Your task to perform on an android device: open chrome privacy settings Image 0: 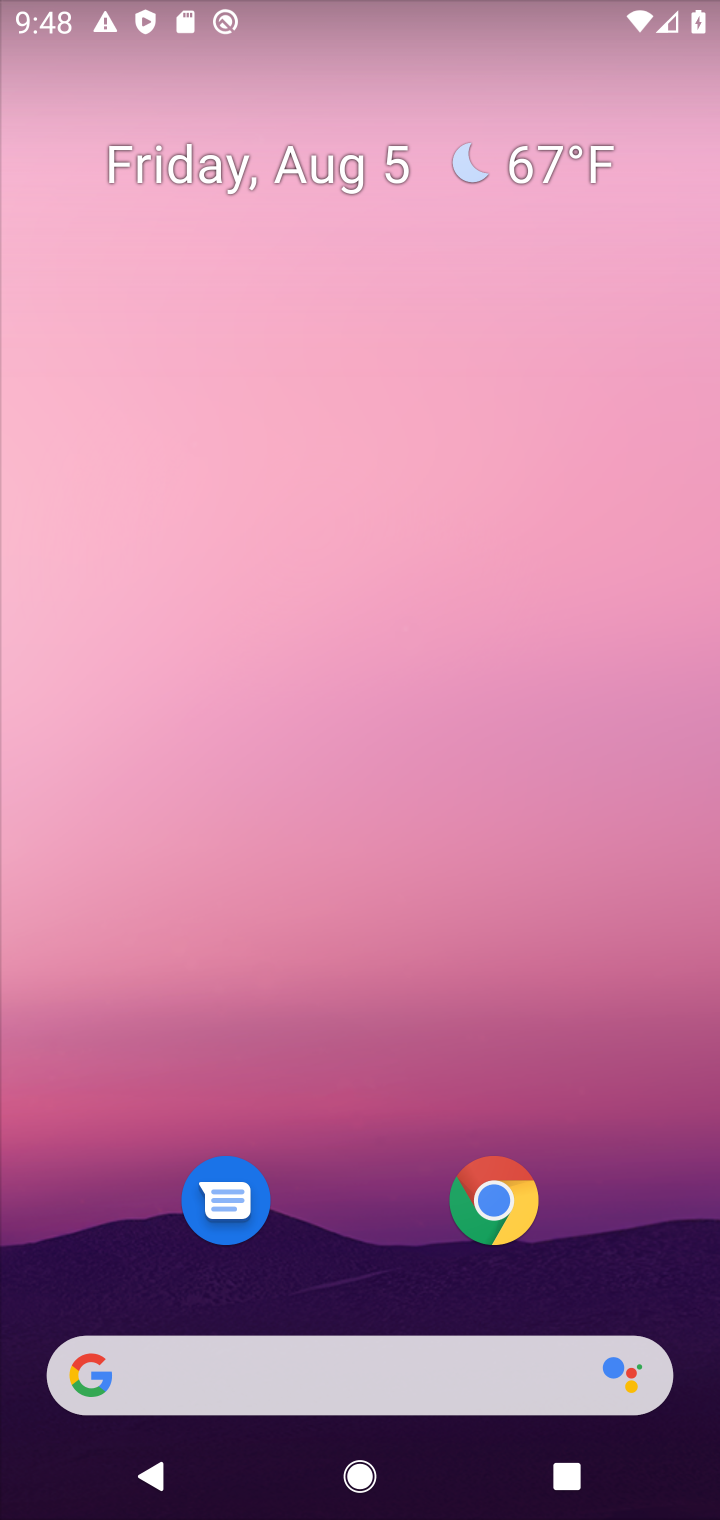
Step 0: click (520, 1198)
Your task to perform on an android device: open chrome privacy settings Image 1: 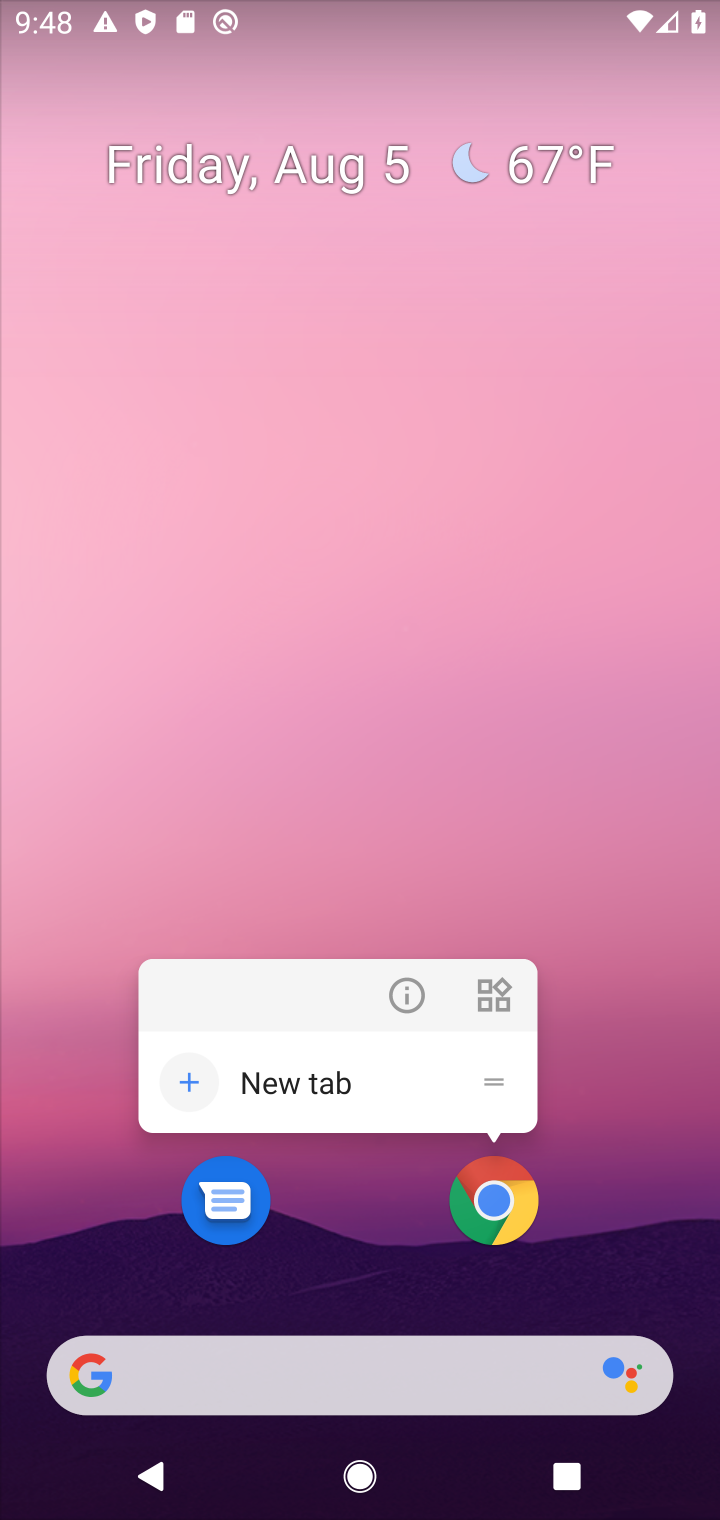
Step 1: click (483, 1202)
Your task to perform on an android device: open chrome privacy settings Image 2: 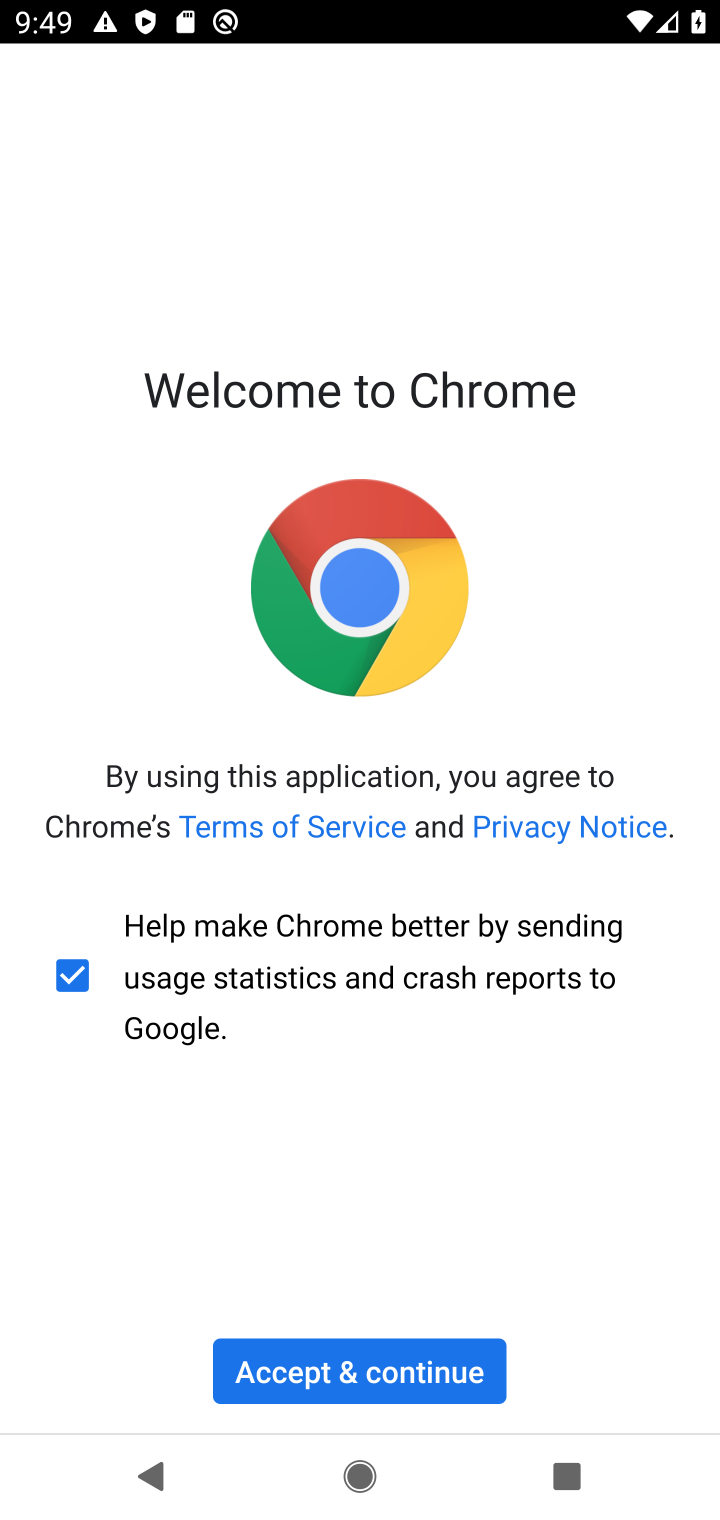
Step 2: click (312, 1381)
Your task to perform on an android device: open chrome privacy settings Image 3: 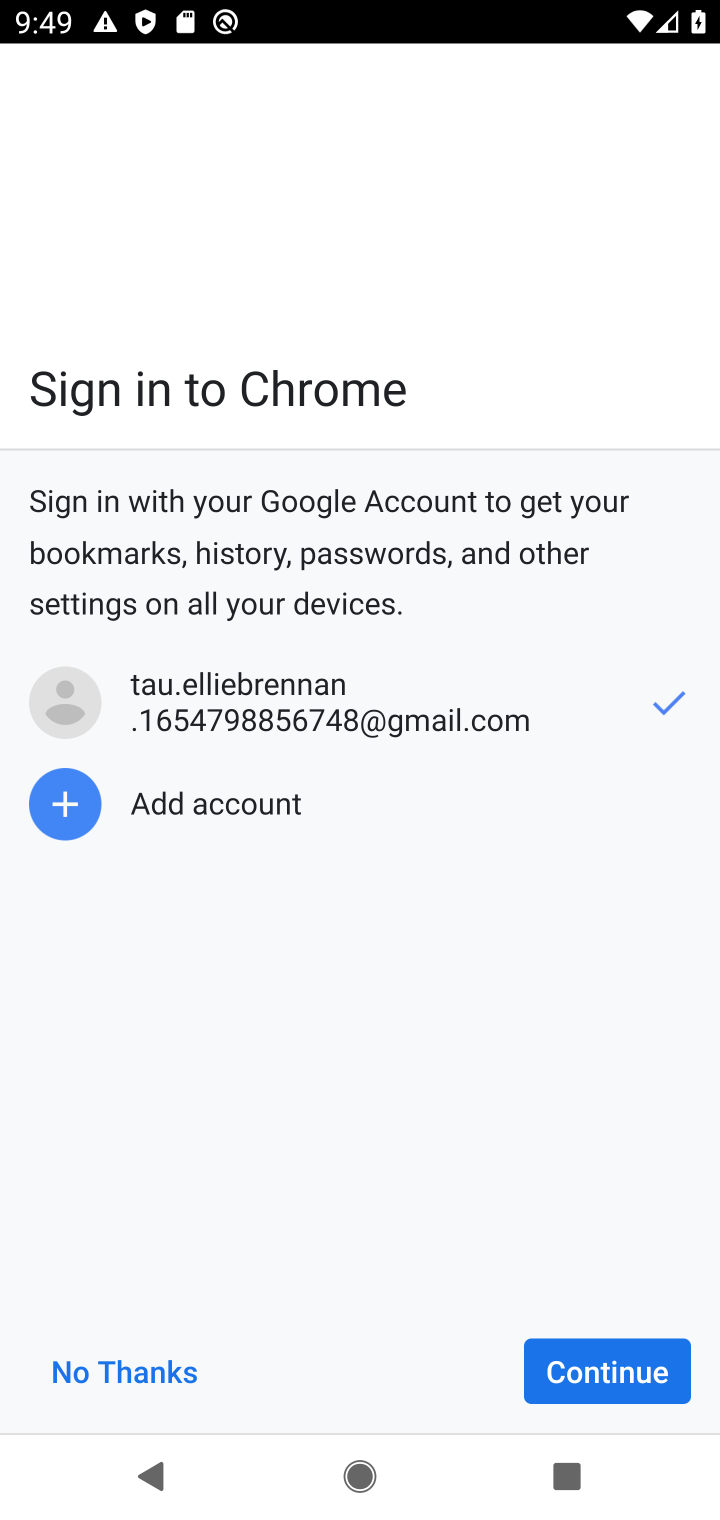
Step 3: click (574, 1373)
Your task to perform on an android device: open chrome privacy settings Image 4: 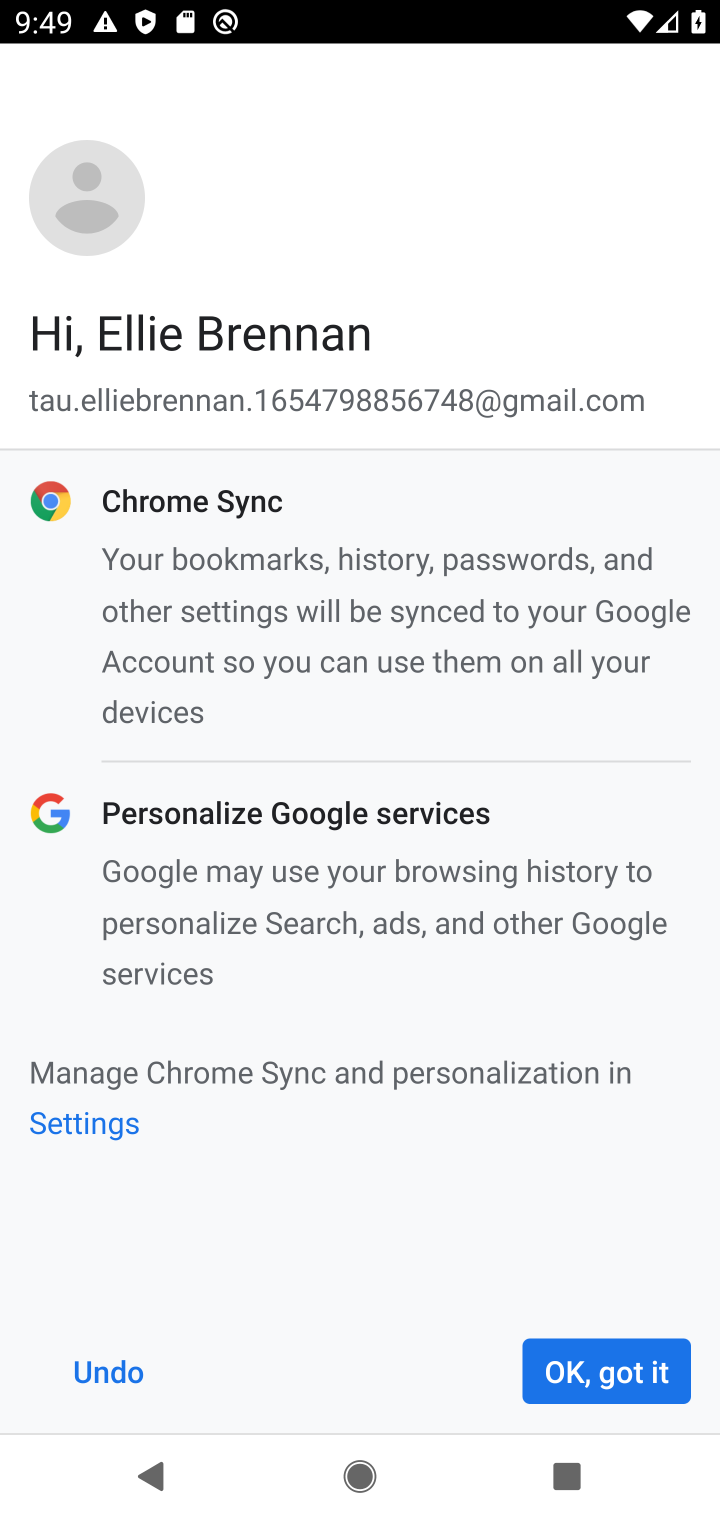
Step 4: click (590, 1366)
Your task to perform on an android device: open chrome privacy settings Image 5: 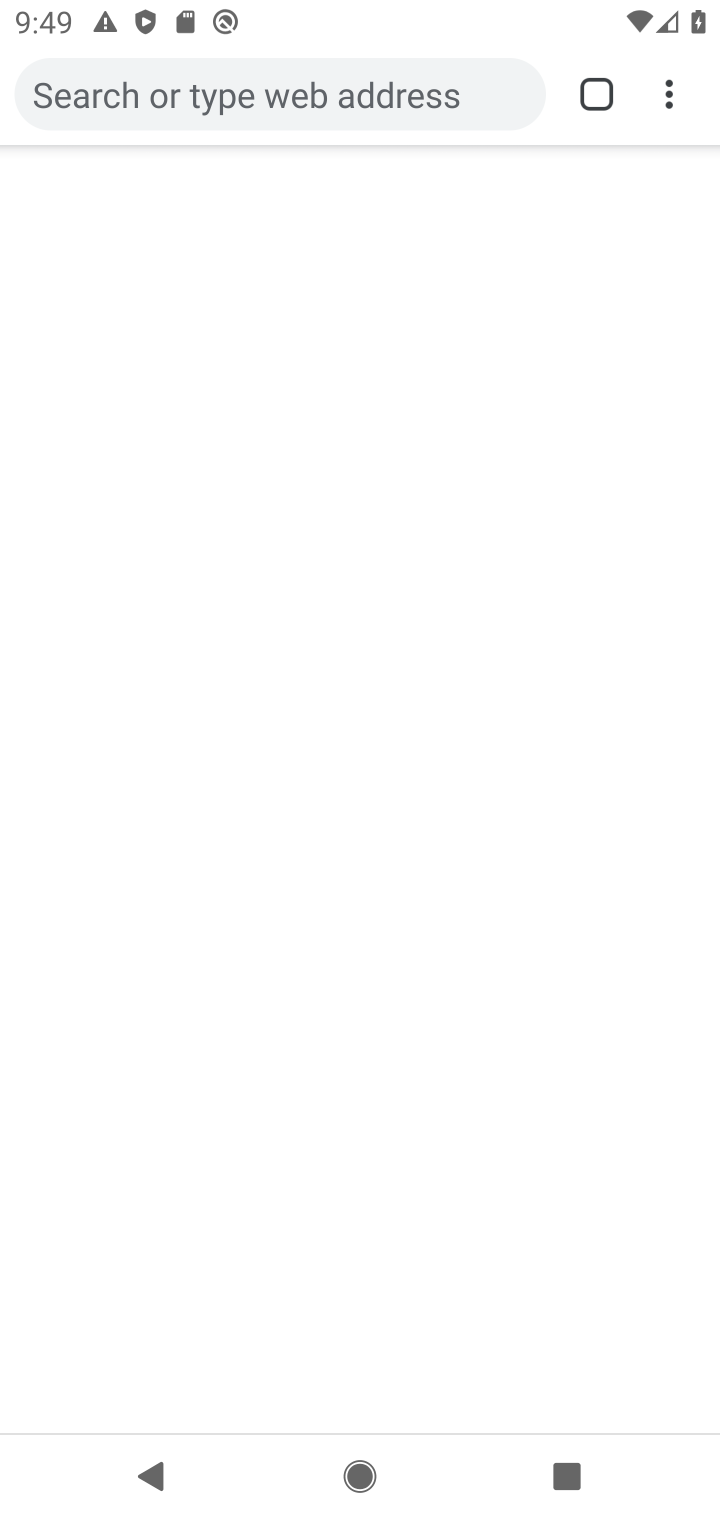
Step 5: drag from (676, 82) to (353, 797)
Your task to perform on an android device: open chrome privacy settings Image 6: 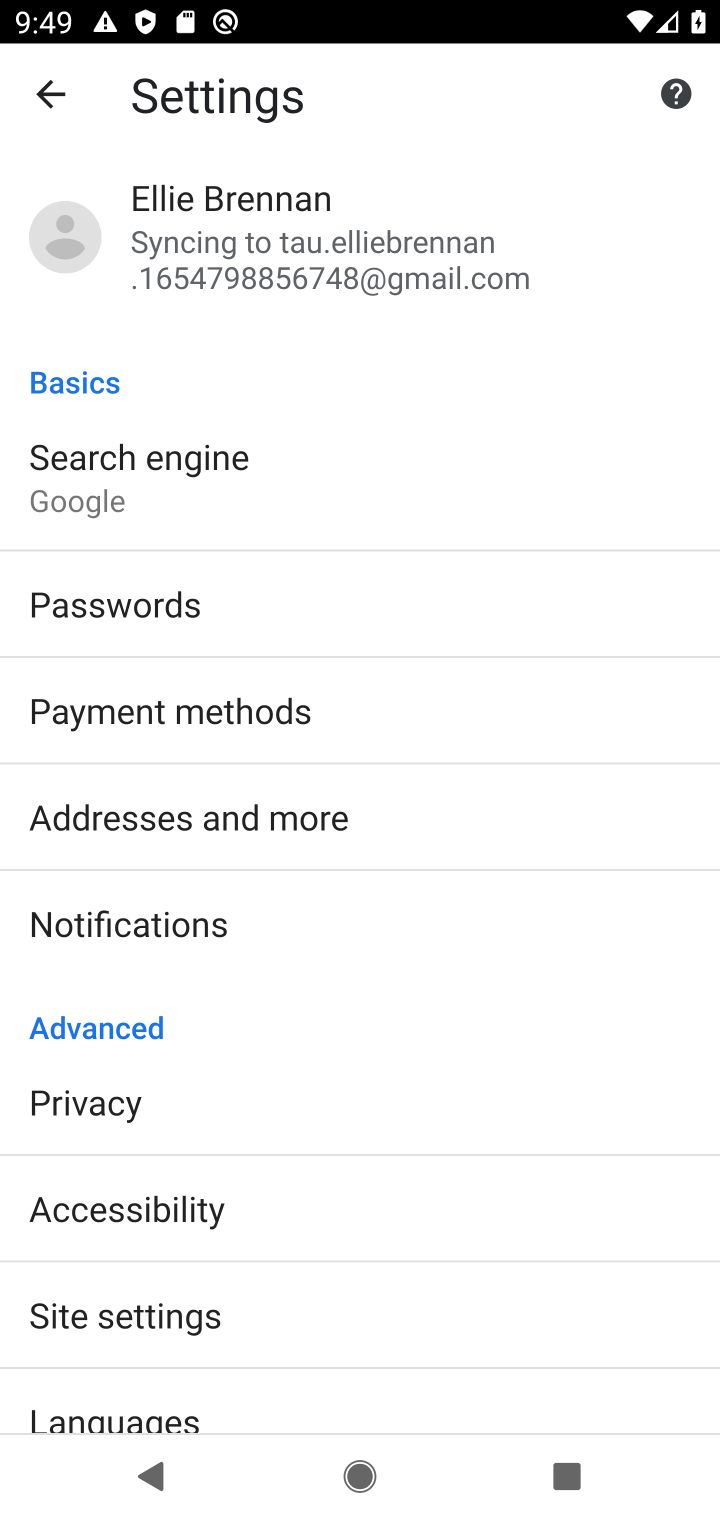
Step 6: click (94, 1091)
Your task to perform on an android device: open chrome privacy settings Image 7: 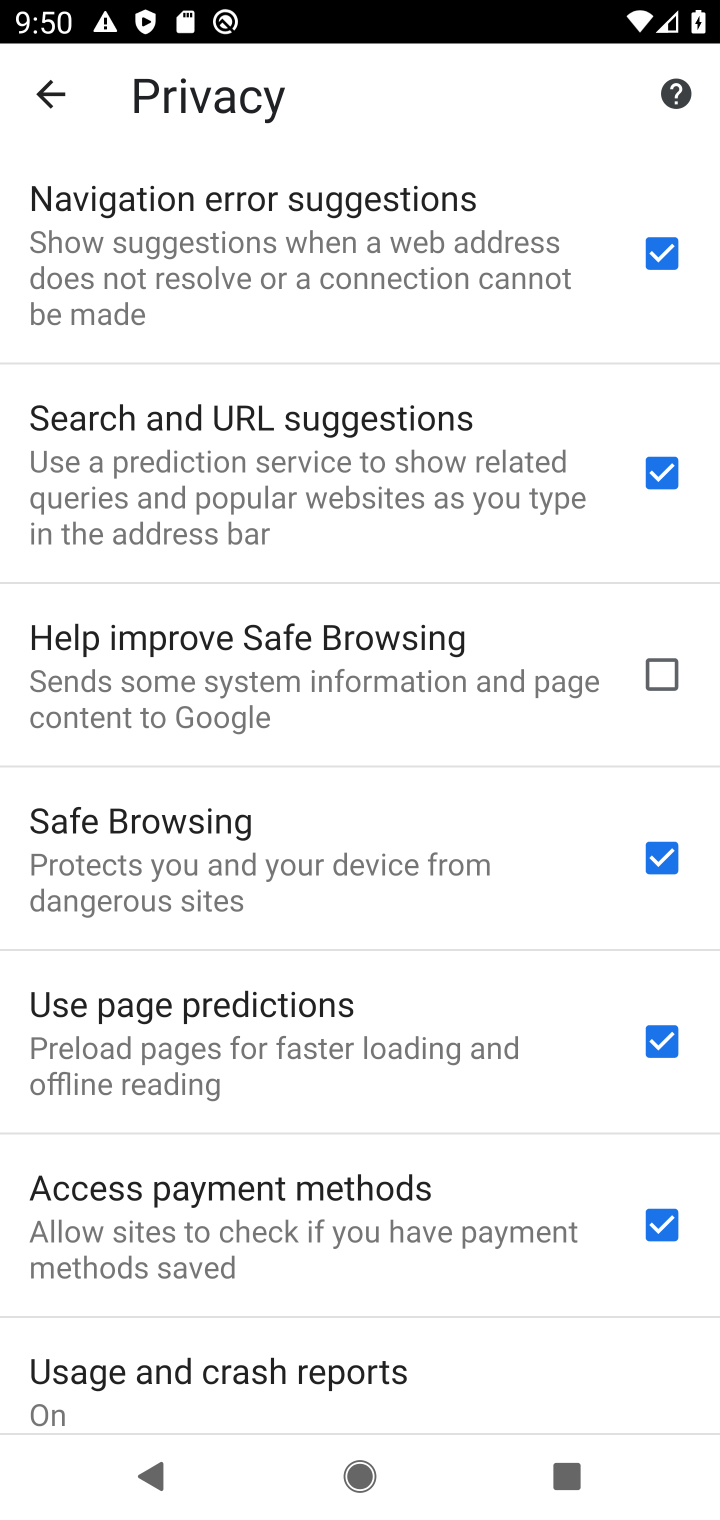
Step 7: task complete